Your task to perform on an android device: Check the settings for the Facebook app Image 0: 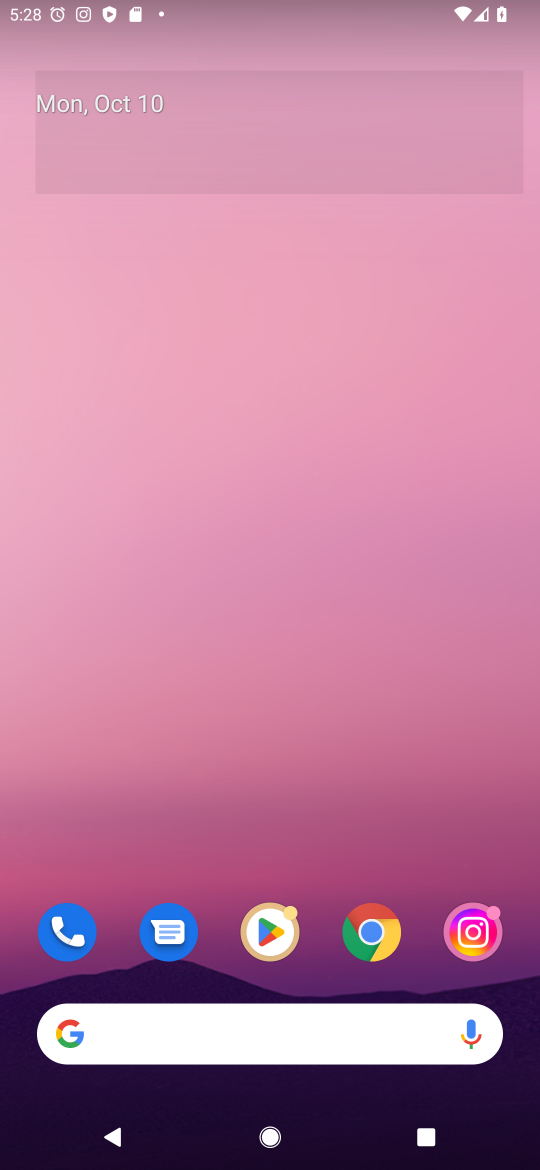
Step 0: press home button
Your task to perform on an android device: Check the settings for the Facebook app Image 1: 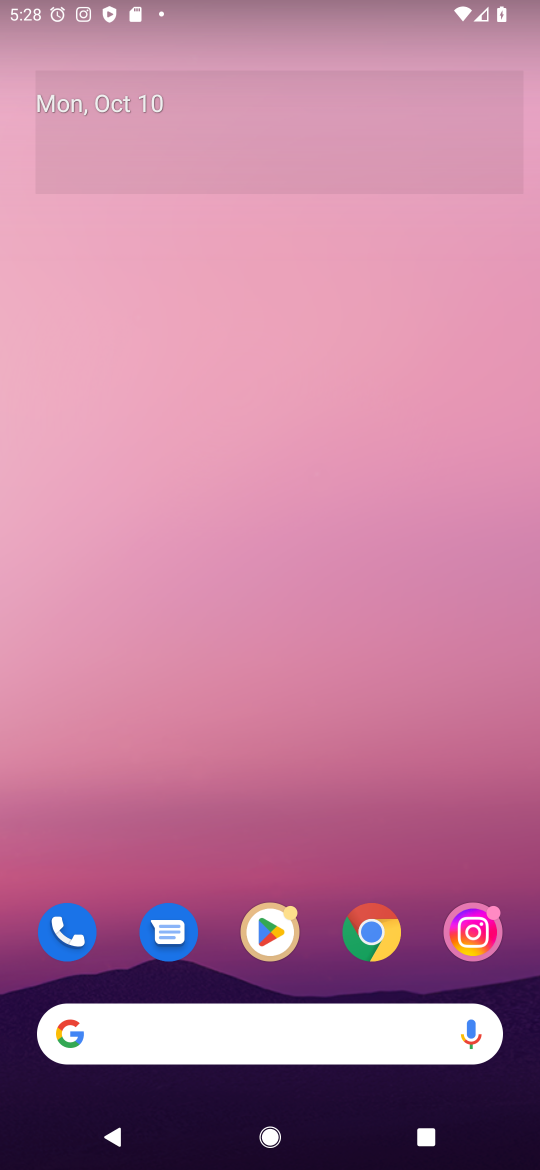
Step 1: drag from (473, 837) to (466, 101)
Your task to perform on an android device: Check the settings for the Facebook app Image 2: 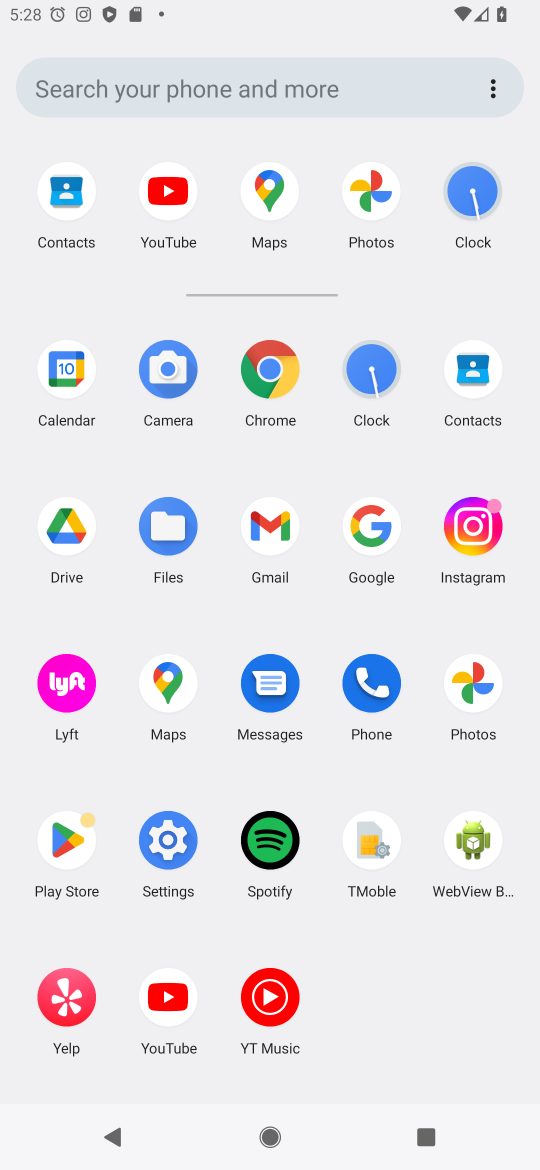
Step 2: click (76, 827)
Your task to perform on an android device: Check the settings for the Facebook app Image 3: 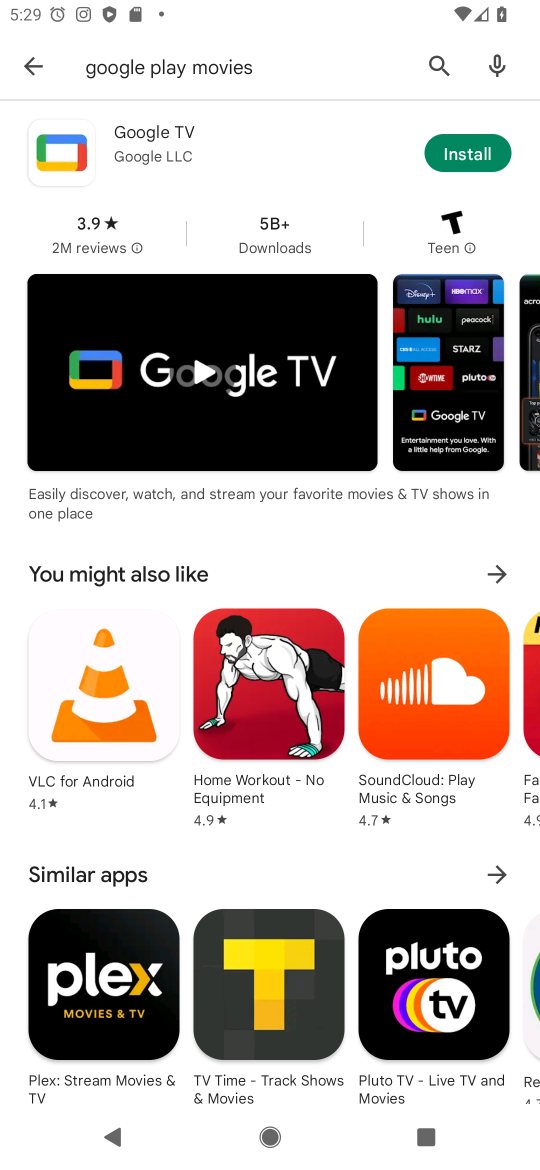
Step 3: press back button
Your task to perform on an android device: Check the settings for the Facebook app Image 4: 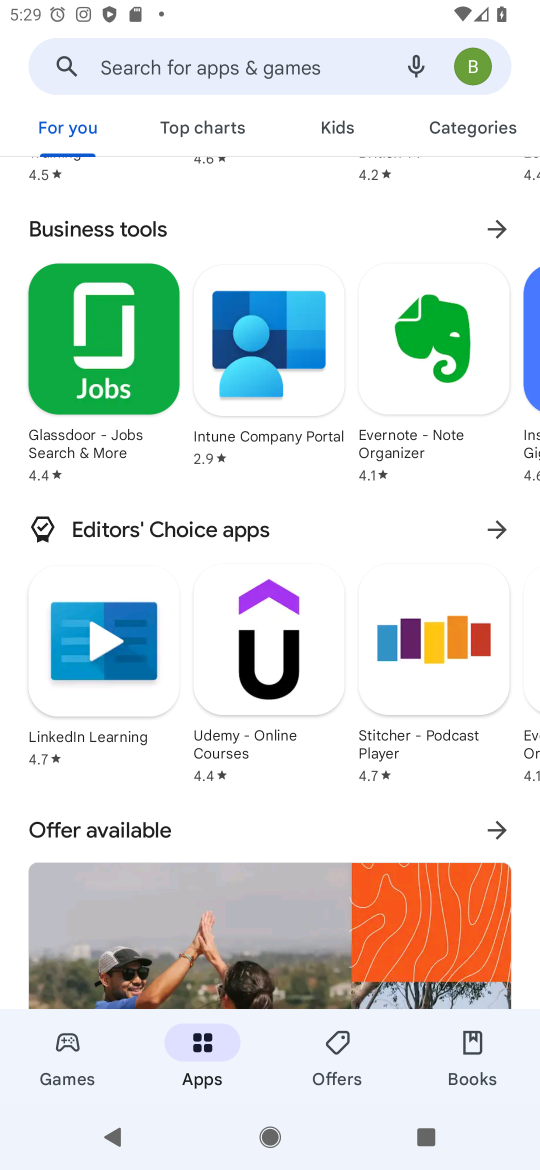
Step 4: click (268, 79)
Your task to perform on an android device: Check the settings for the Facebook app Image 5: 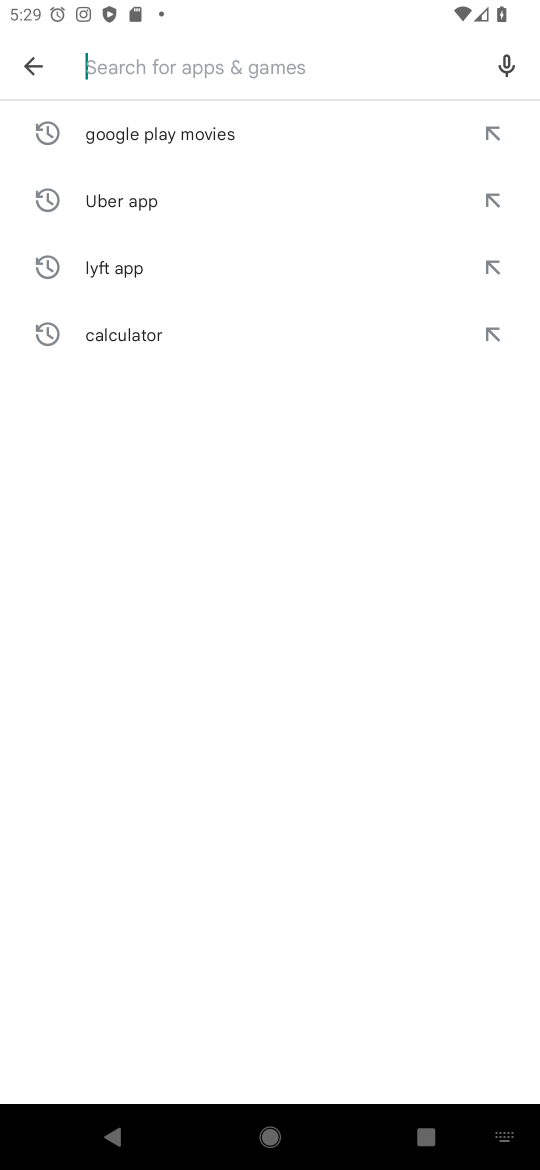
Step 5: type "Facebook app"
Your task to perform on an android device: Check the settings for the Facebook app Image 6: 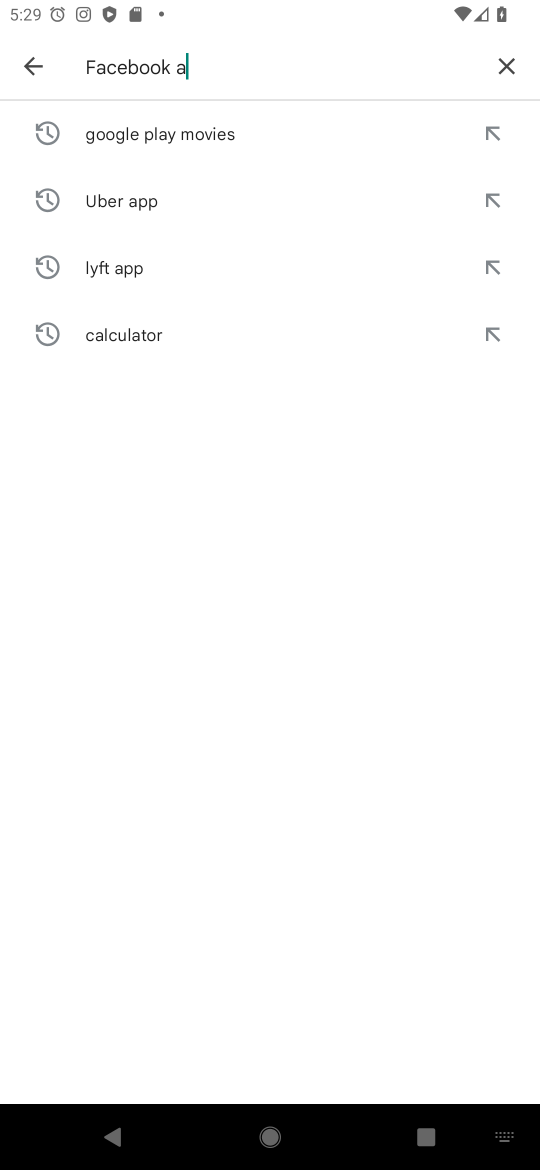
Step 6: press enter
Your task to perform on an android device: Check the settings for the Facebook app Image 7: 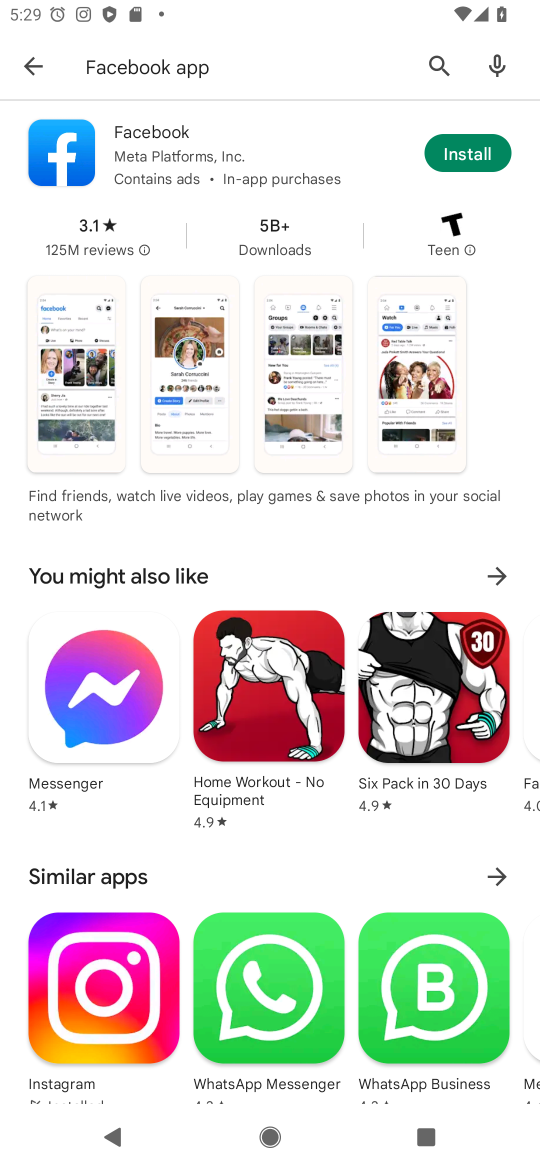
Step 7: task complete